Your task to perform on an android device: install app "Indeed Job Search" Image 0: 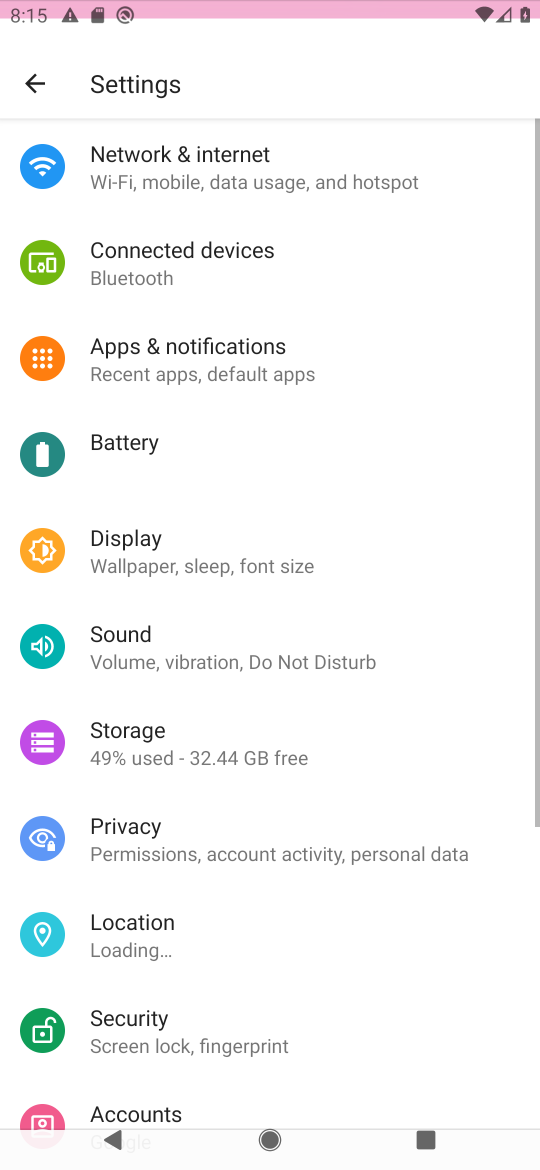
Step 0: press home button
Your task to perform on an android device: install app "Indeed Job Search" Image 1: 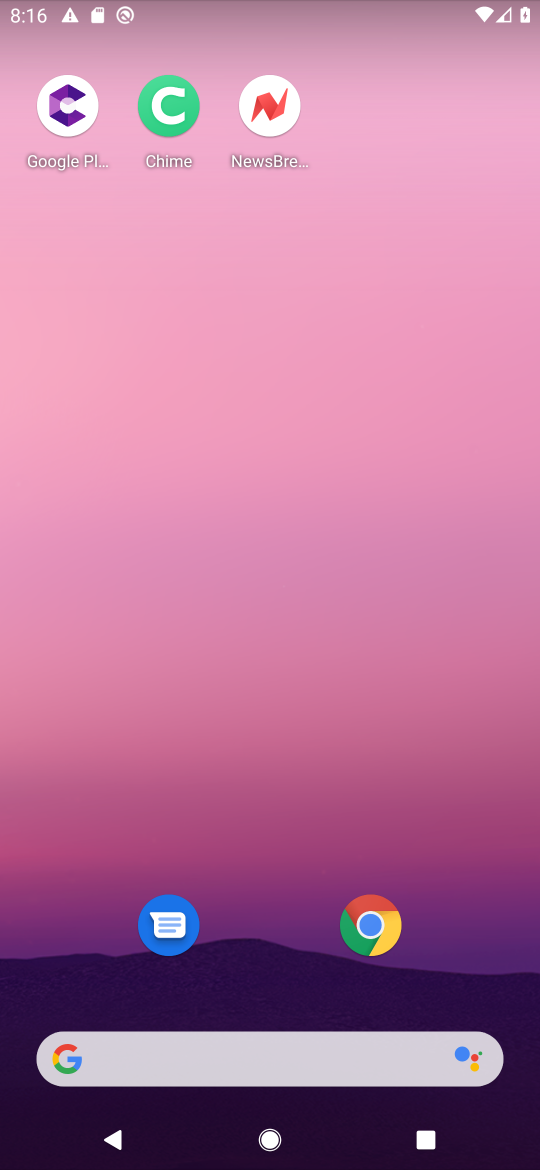
Step 1: drag from (250, 963) to (492, 3)
Your task to perform on an android device: install app "Indeed Job Search" Image 2: 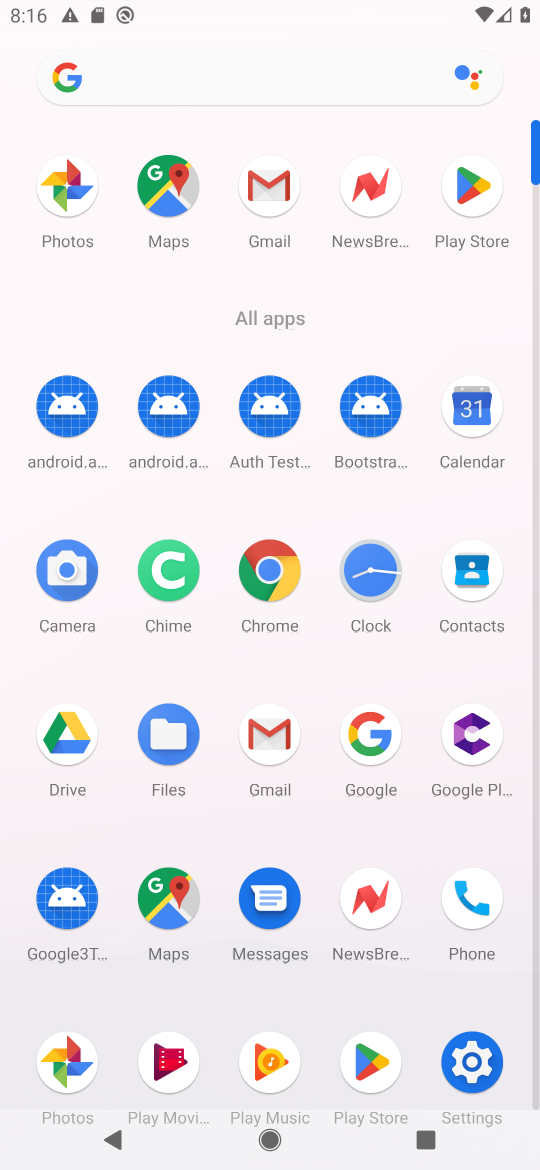
Step 2: click (470, 201)
Your task to perform on an android device: install app "Indeed Job Search" Image 3: 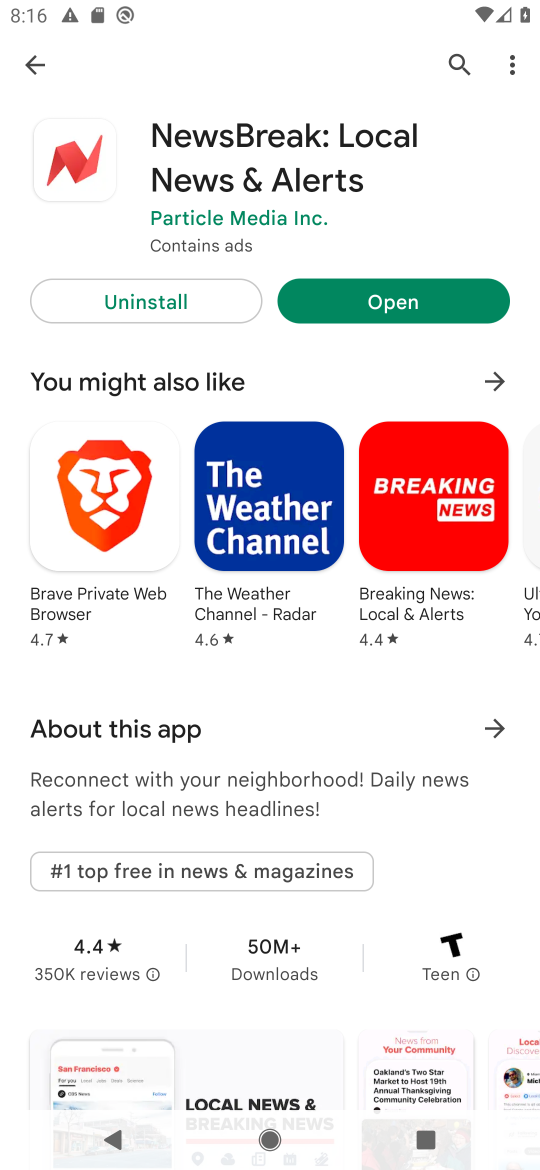
Step 3: click (460, 55)
Your task to perform on an android device: install app "Indeed Job Search" Image 4: 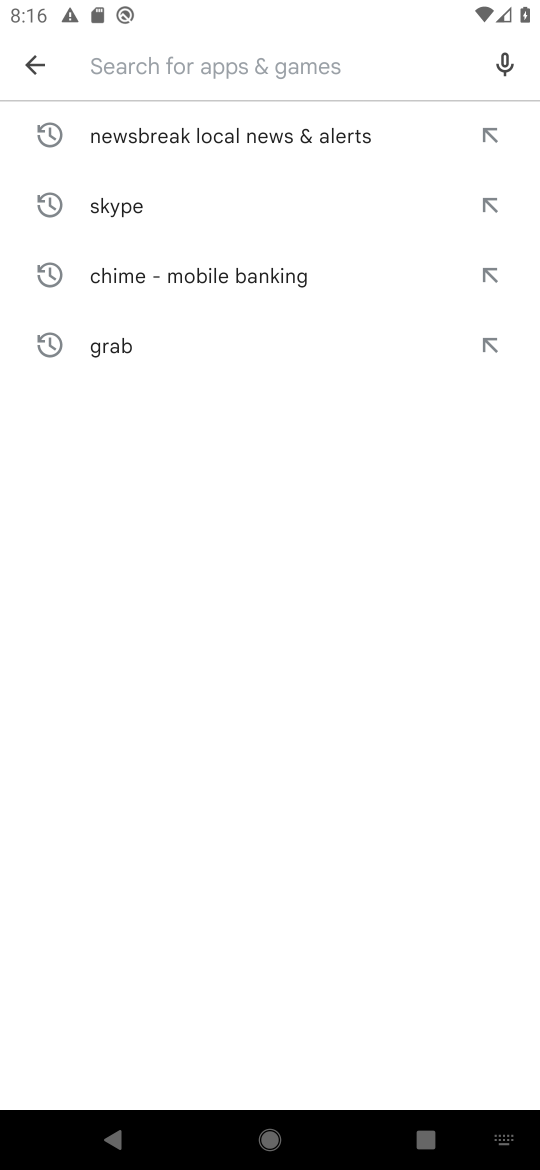
Step 4: type "indeed job search"
Your task to perform on an android device: install app "Indeed Job Search" Image 5: 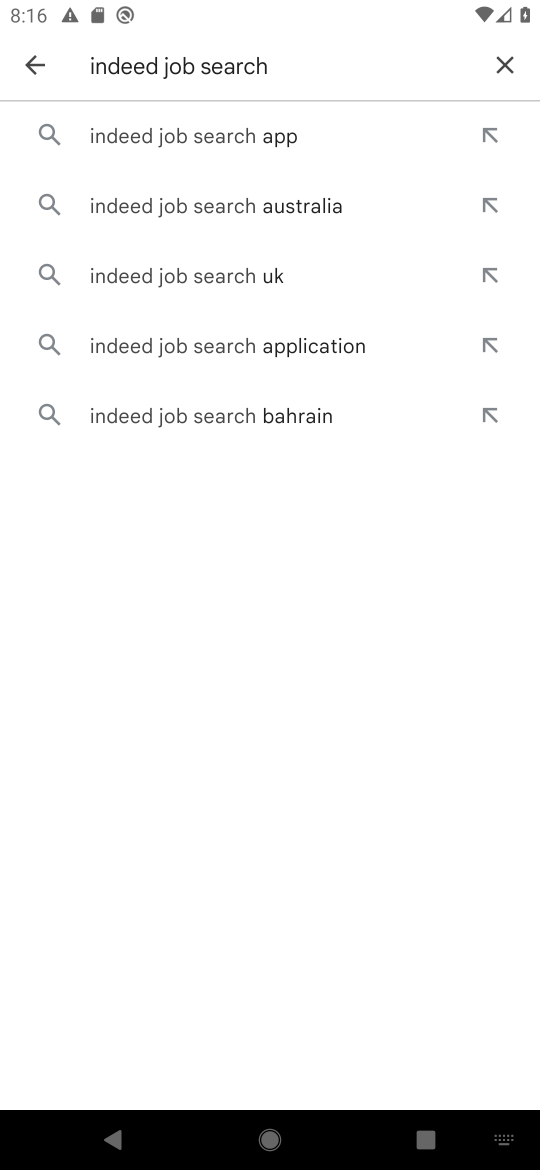
Step 5: click (204, 126)
Your task to perform on an android device: install app "Indeed Job Search" Image 6: 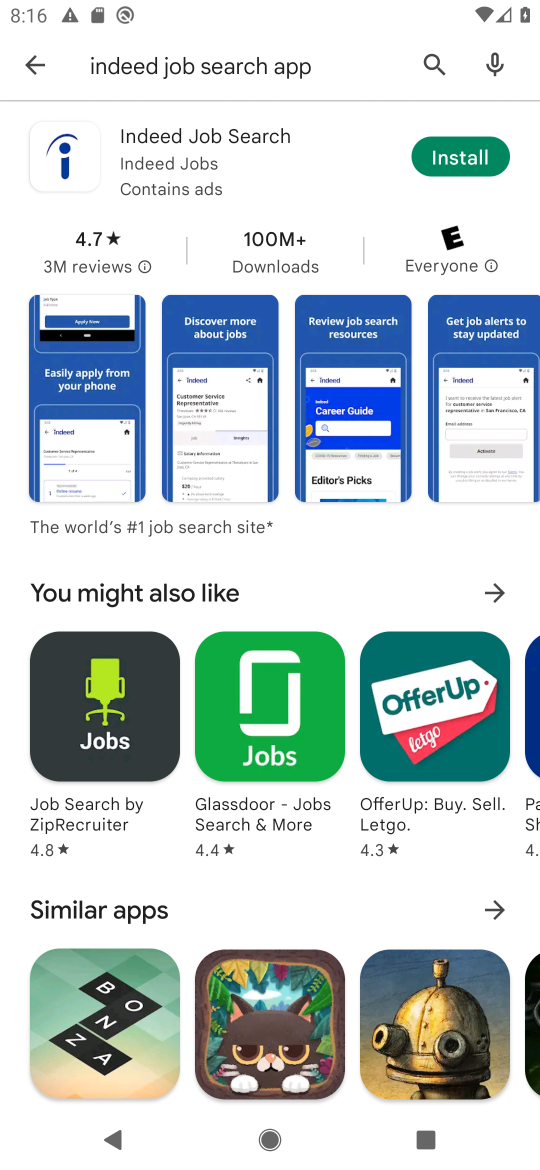
Step 6: click (208, 128)
Your task to perform on an android device: install app "Indeed Job Search" Image 7: 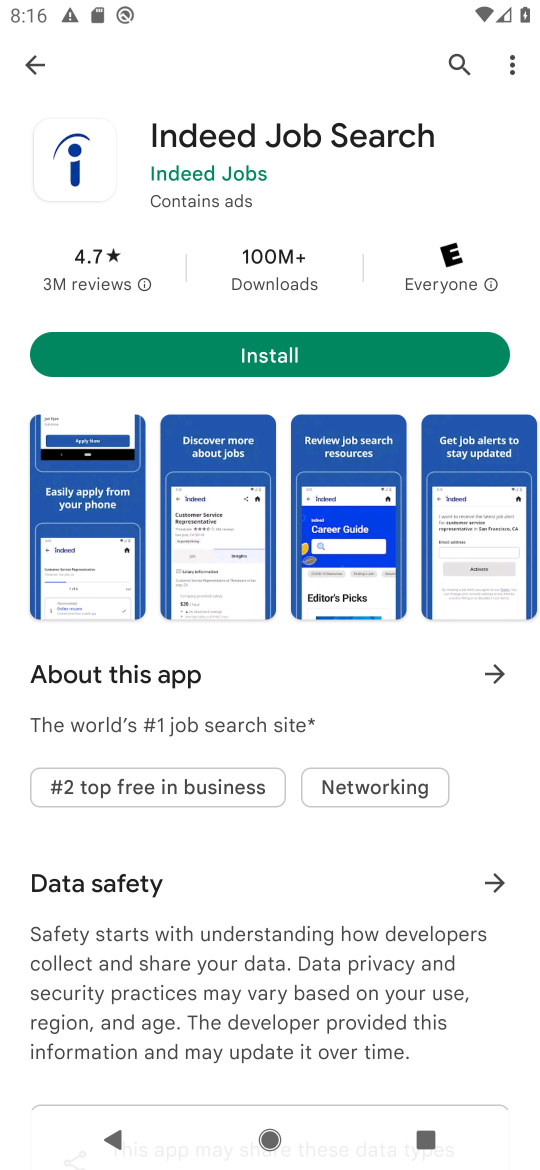
Step 7: click (279, 358)
Your task to perform on an android device: install app "Indeed Job Search" Image 8: 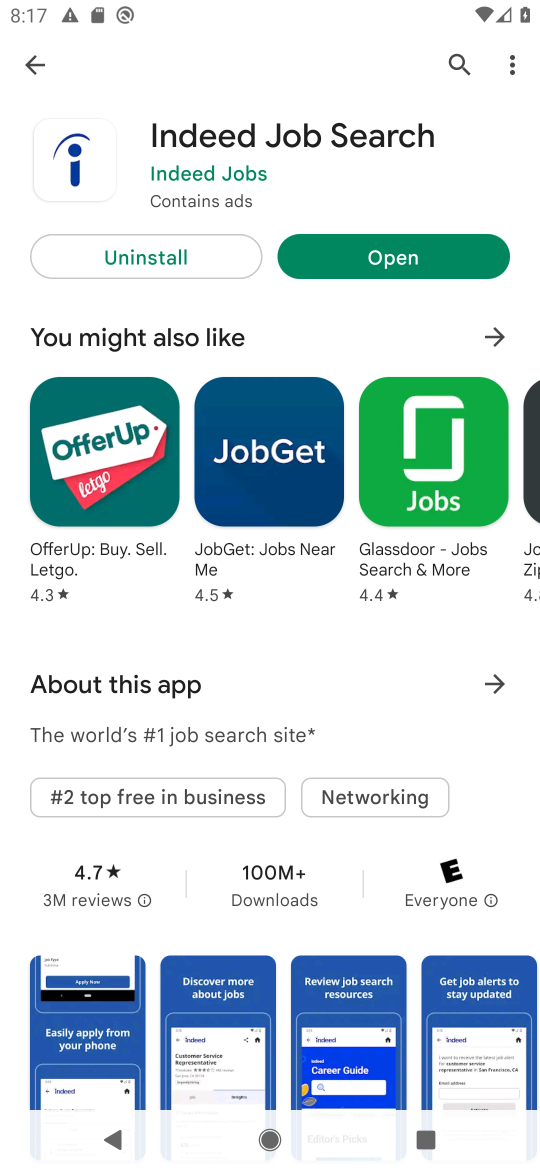
Step 8: task complete